Your task to perform on an android device: turn off notifications in google photos Image 0: 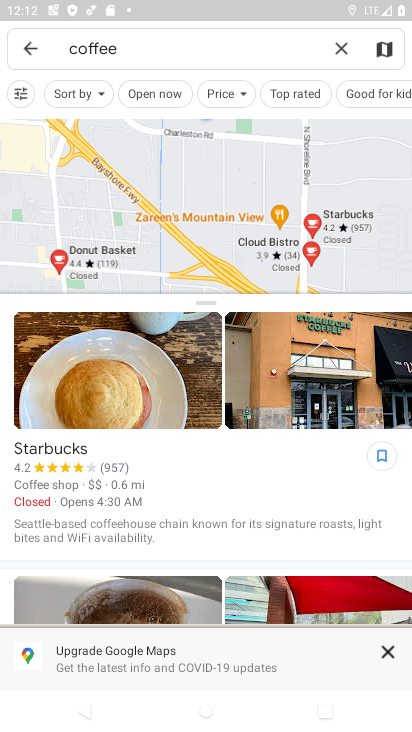
Step 0: press home button
Your task to perform on an android device: turn off notifications in google photos Image 1: 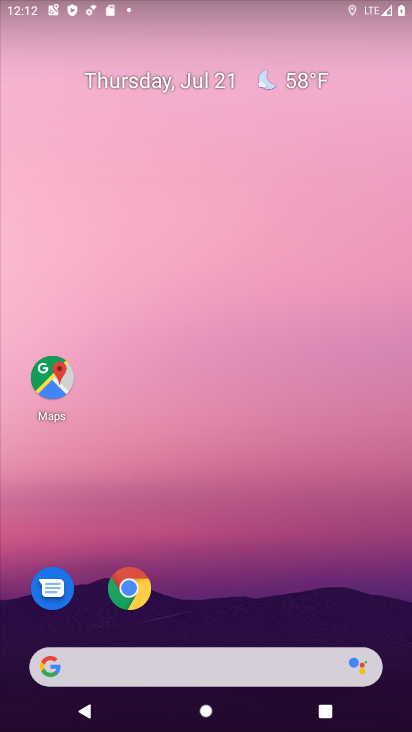
Step 1: drag from (227, 595) to (218, 86)
Your task to perform on an android device: turn off notifications in google photos Image 2: 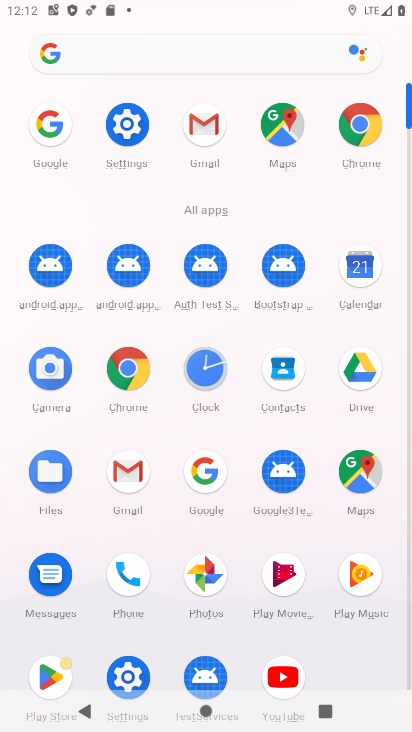
Step 2: click (204, 568)
Your task to perform on an android device: turn off notifications in google photos Image 3: 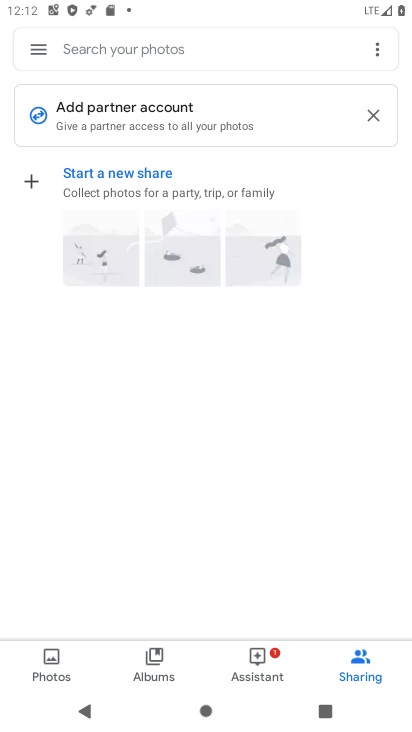
Step 3: click (49, 52)
Your task to perform on an android device: turn off notifications in google photos Image 4: 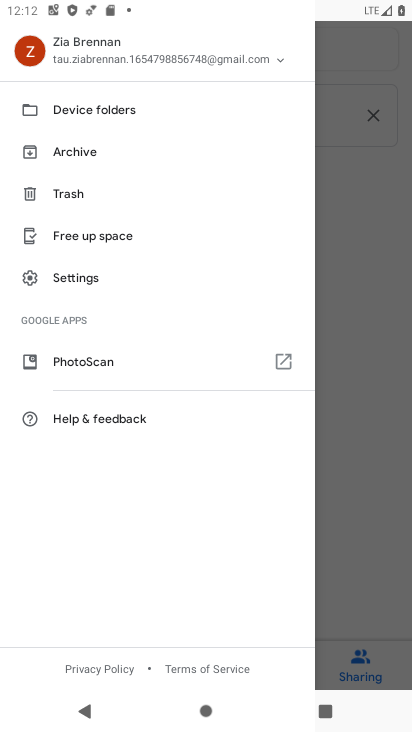
Step 4: click (107, 281)
Your task to perform on an android device: turn off notifications in google photos Image 5: 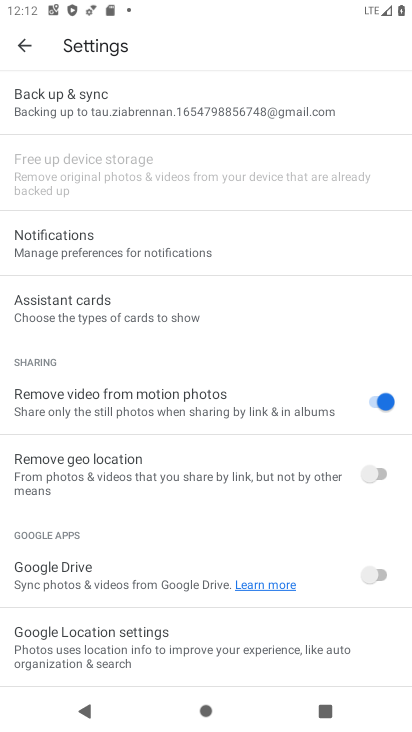
Step 5: click (107, 241)
Your task to perform on an android device: turn off notifications in google photos Image 6: 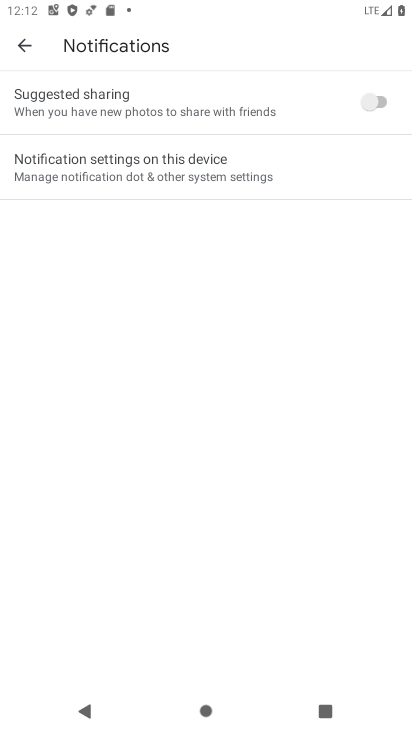
Step 6: click (169, 159)
Your task to perform on an android device: turn off notifications in google photos Image 7: 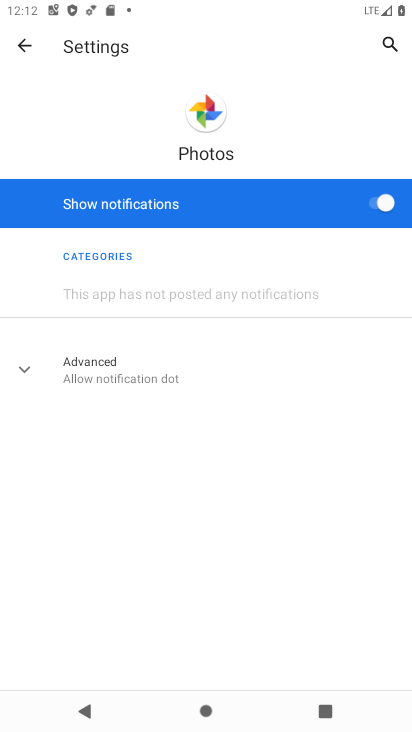
Step 7: click (381, 189)
Your task to perform on an android device: turn off notifications in google photos Image 8: 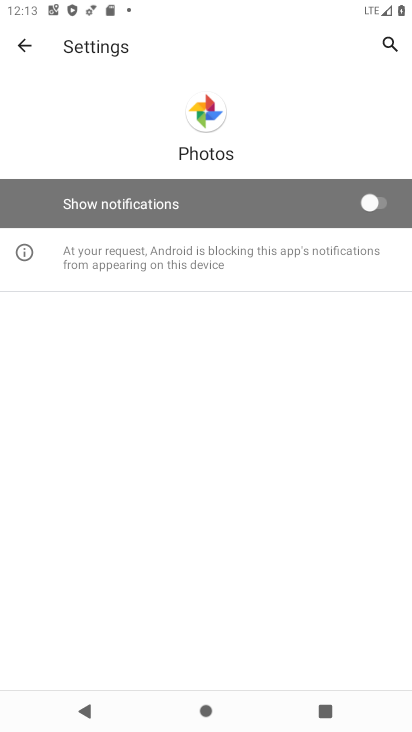
Step 8: task complete